Your task to perform on an android device: check android version Image 0: 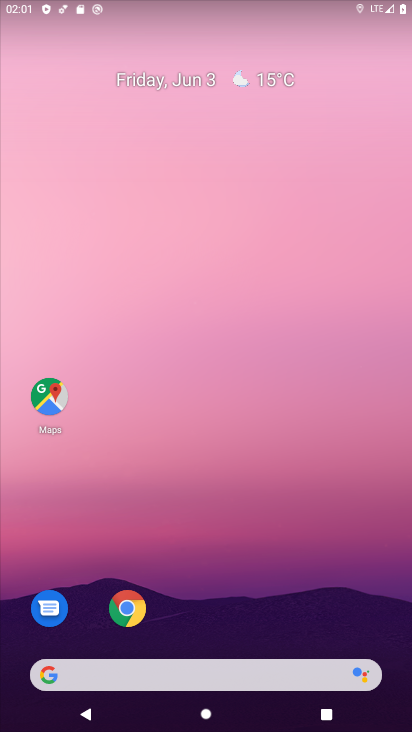
Step 0: drag from (212, 438) to (212, 139)
Your task to perform on an android device: check android version Image 1: 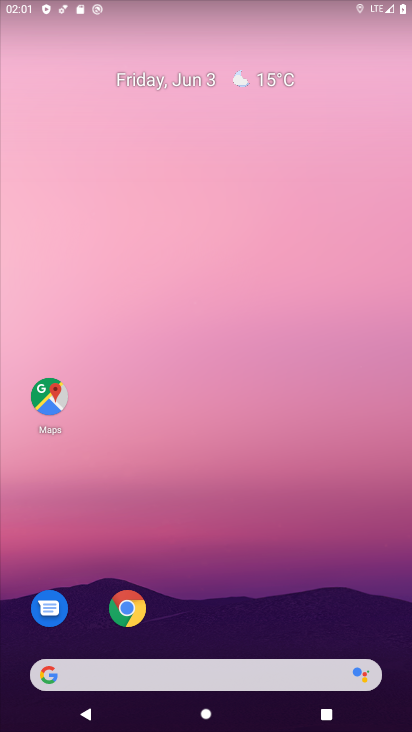
Step 1: drag from (299, 489) to (280, 39)
Your task to perform on an android device: check android version Image 2: 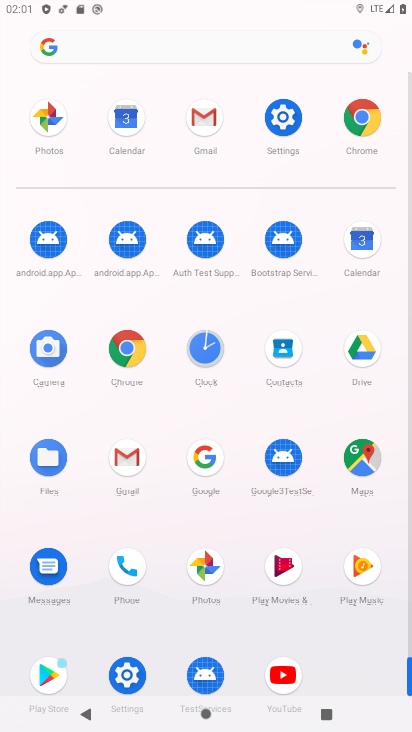
Step 2: click (279, 117)
Your task to perform on an android device: check android version Image 3: 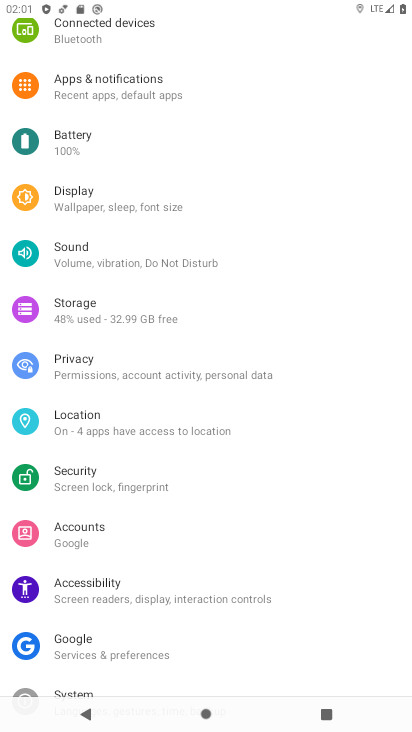
Step 3: drag from (211, 632) to (250, 154)
Your task to perform on an android device: check android version Image 4: 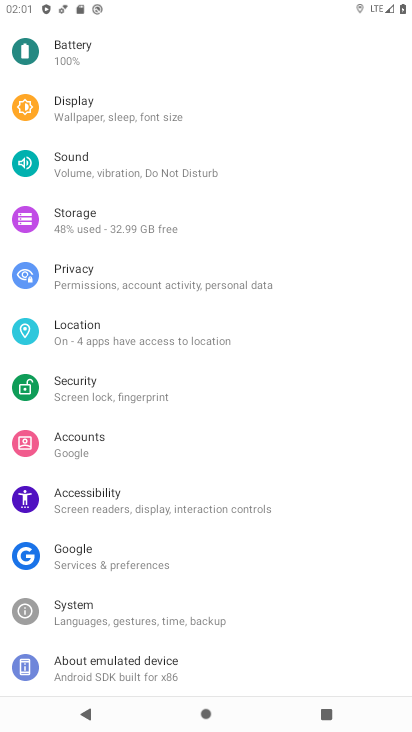
Step 4: click (141, 681)
Your task to perform on an android device: check android version Image 5: 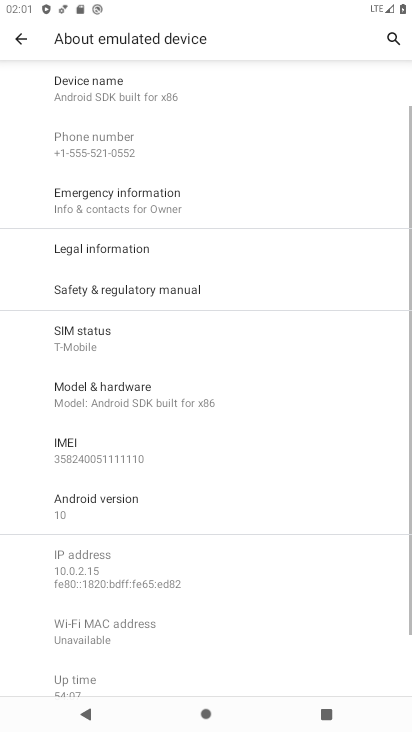
Step 5: click (98, 508)
Your task to perform on an android device: check android version Image 6: 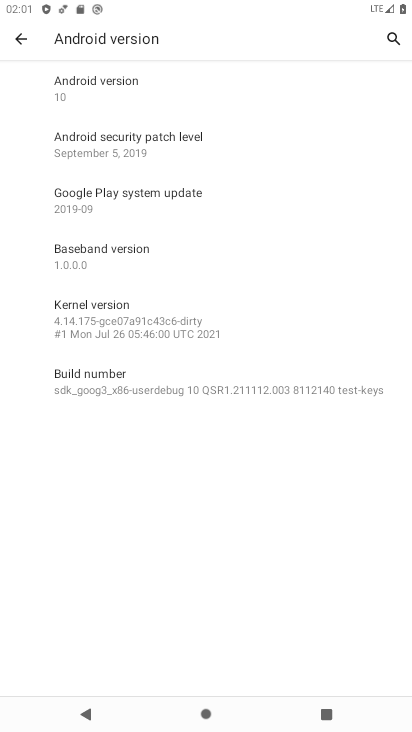
Step 6: task complete